Your task to perform on an android device: Open Chrome and go to settings Image 0: 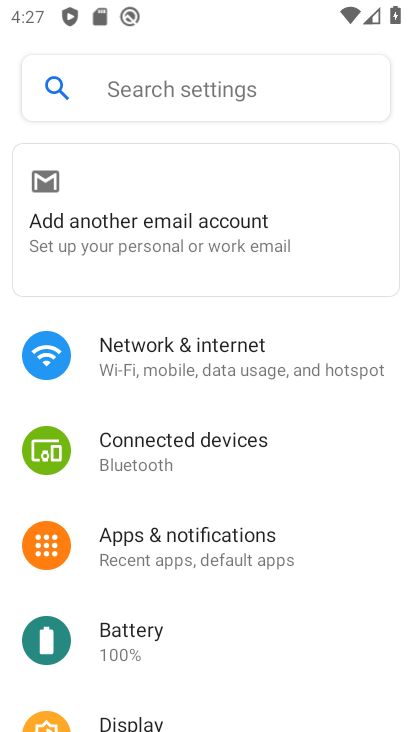
Step 0: press home button
Your task to perform on an android device: Open Chrome and go to settings Image 1: 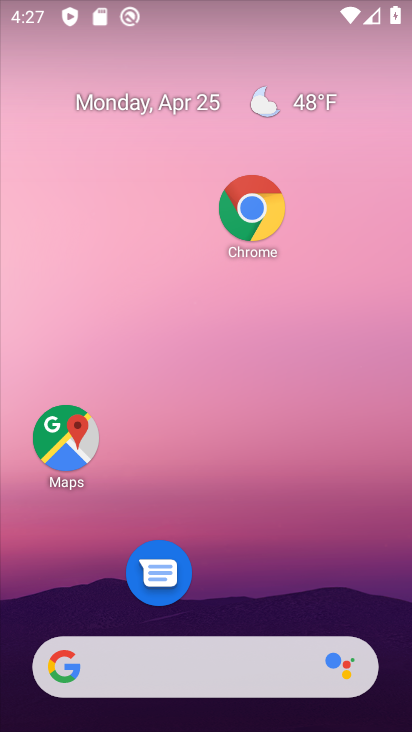
Step 1: click (255, 203)
Your task to perform on an android device: Open Chrome and go to settings Image 2: 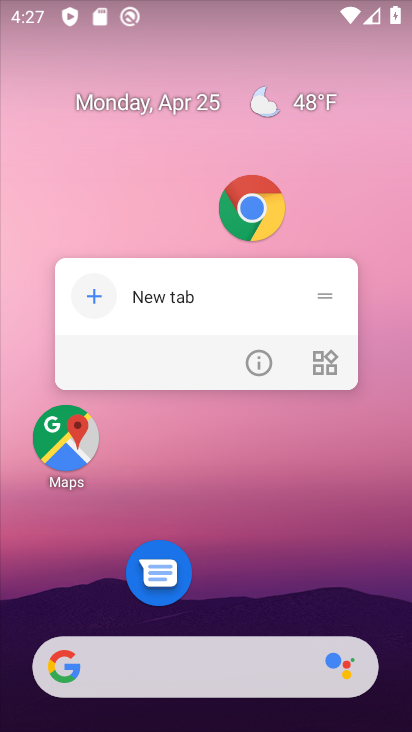
Step 2: click (255, 207)
Your task to perform on an android device: Open Chrome and go to settings Image 3: 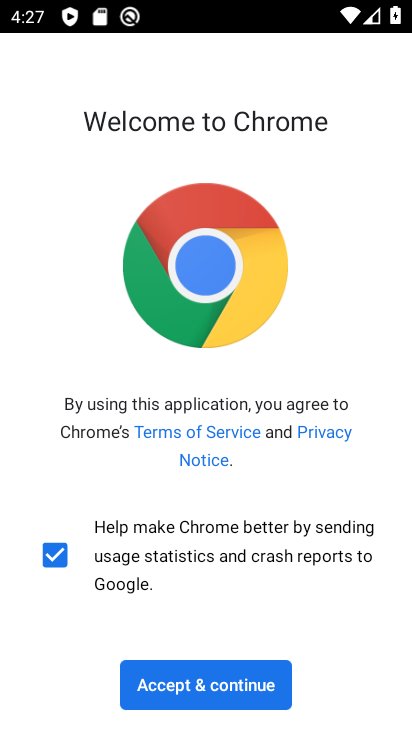
Step 3: click (255, 668)
Your task to perform on an android device: Open Chrome and go to settings Image 4: 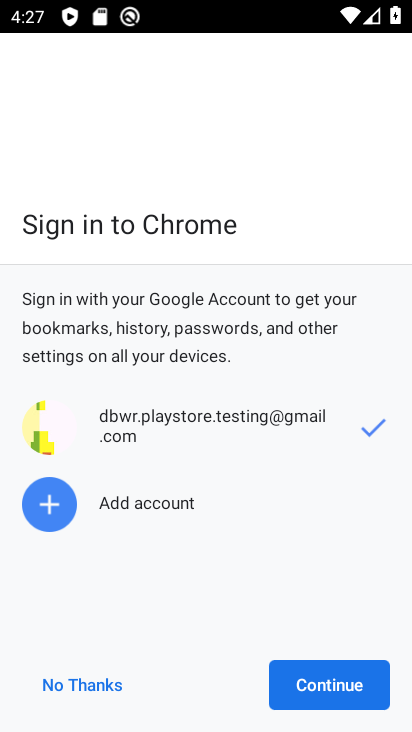
Step 4: click (314, 663)
Your task to perform on an android device: Open Chrome and go to settings Image 5: 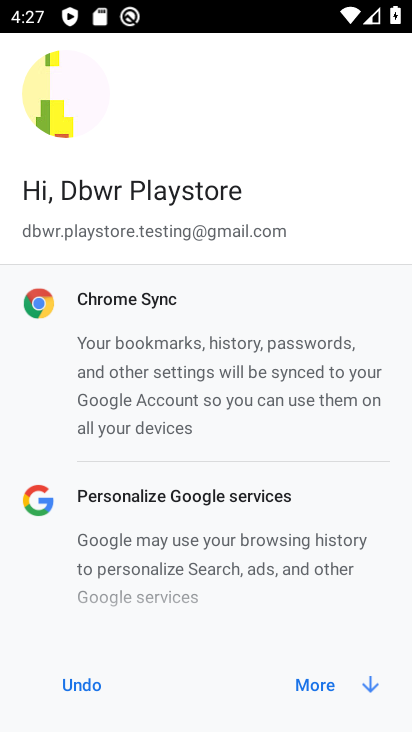
Step 5: click (319, 681)
Your task to perform on an android device: Open Chrome and go to settings Image 6: 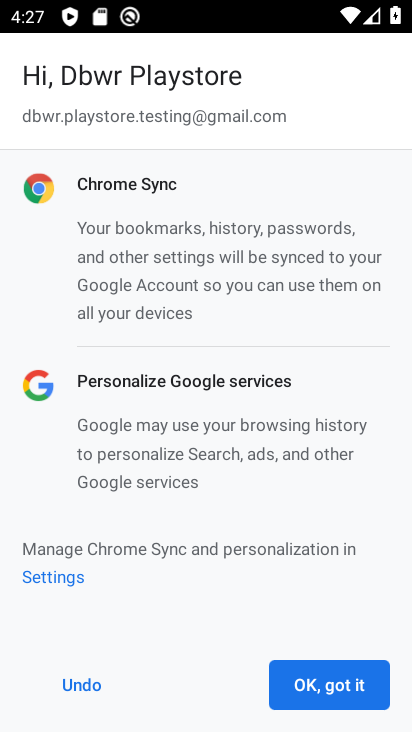
Step 6: click (319, 678)
Your task to perform on an android device: Open Chrome and go to settings Image 7: 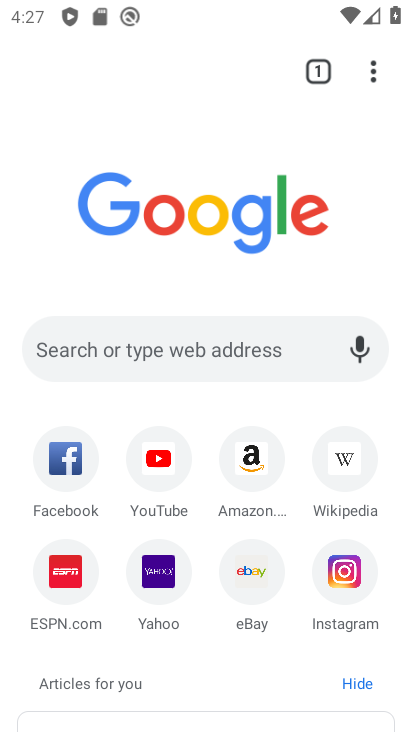
Step 7: click (372, 68)
Your task to perform on an android device: Open Chrome and go to settings Image 8: 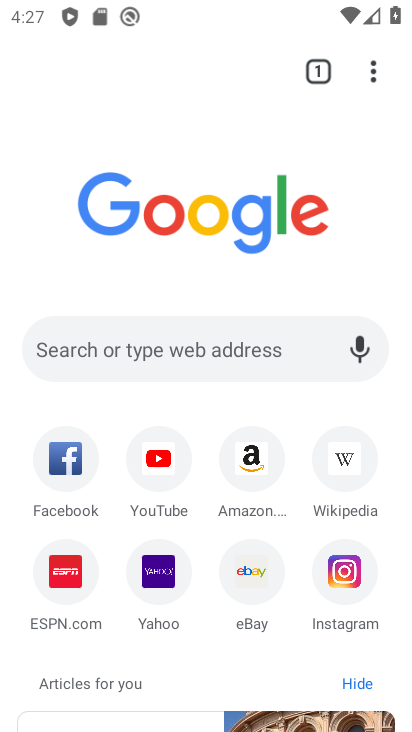
Step 8: click (367, 77)
Your task to perform on an android device: Open Chrome and go to settings Image 9: 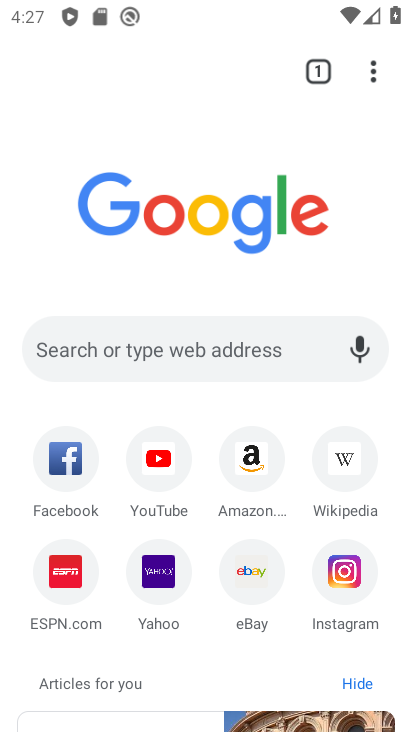
Step 9: click (372, 72)
Your task to perform on an android device: Open Chrome and go to settings Image 10: 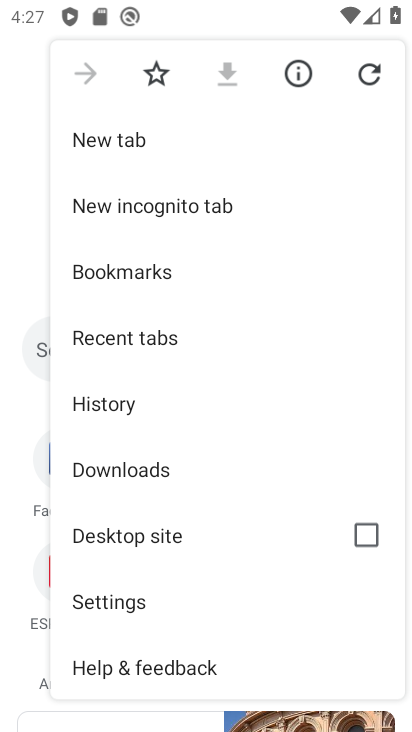
Step 10: click (122, 594)
Your task to perform on an android device: Open Chrome and go to settings Image 11: 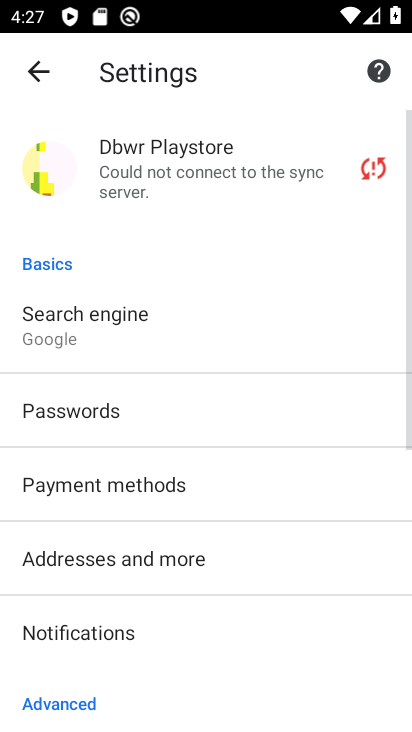
Step 11: task complete